Your task to perform on an android device: search for starred emails in the gmail app Image 0: 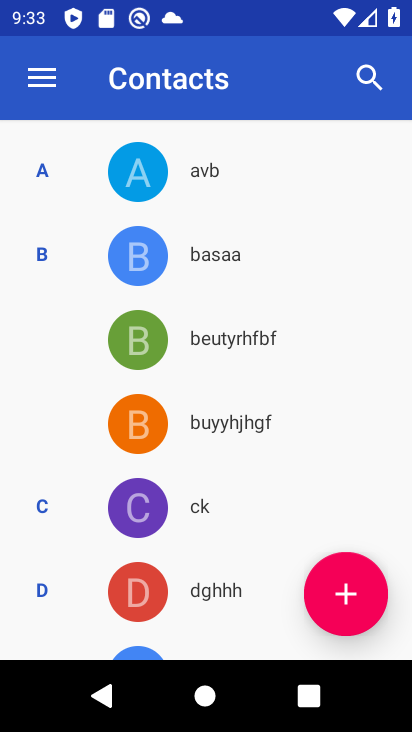
Step 0: press home button
Your task to perform on an android device: search for starred emails in the gmail app Image 1: 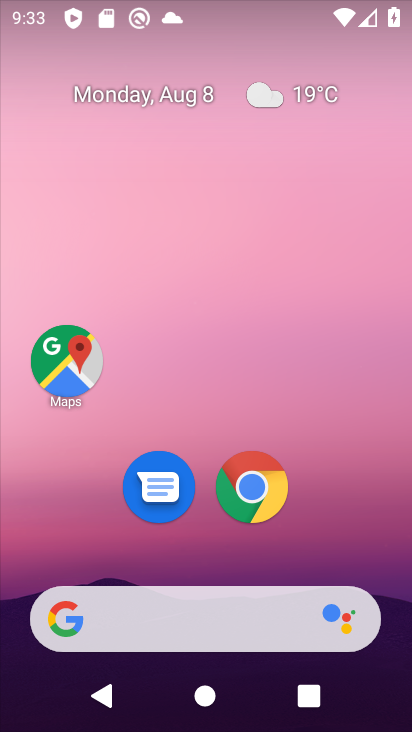
Step 1: drag from (214, 563) to (214, 60)
Your task to perform on an android device: search for starred emails in the gmail app Image 2: 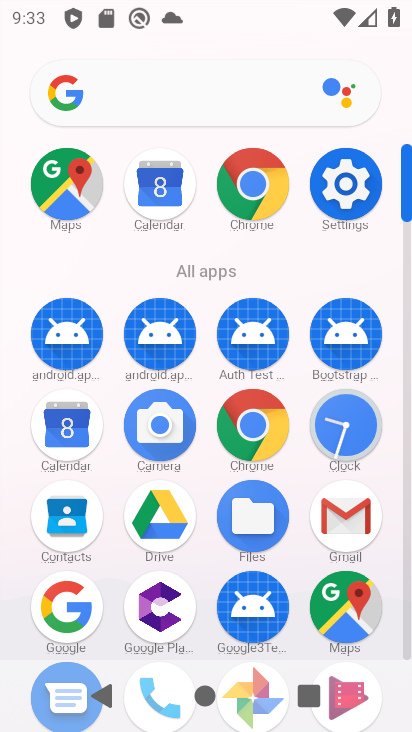
Step 2: click (353, 512)
Your task to perform on an android device: search for starred emails in the gmail app Image 3: 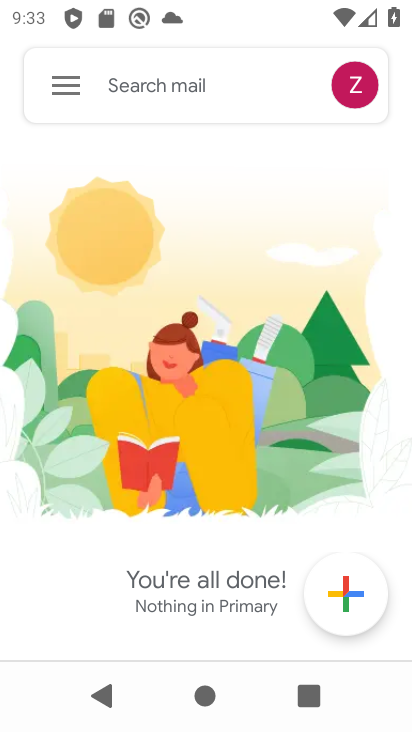
Step 3: click (67, 84)
Your task to perform on an android device: search for starred emails in the gmail app Image 4: 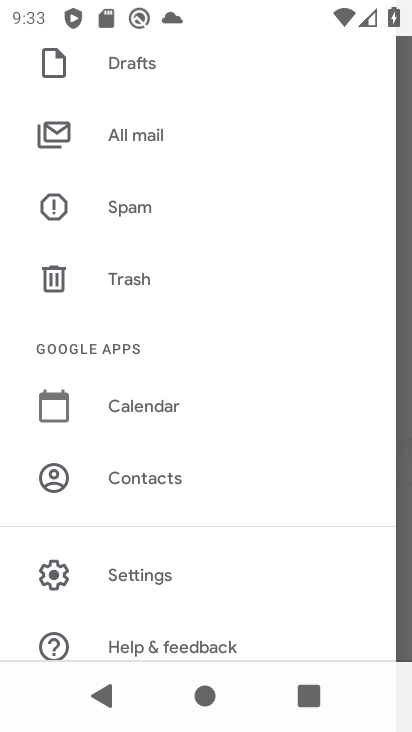
Step 4: drag from (150, 124) to (128, 440)
Your task to perform on an android device: search for starred emails in the gmail app Image 5: 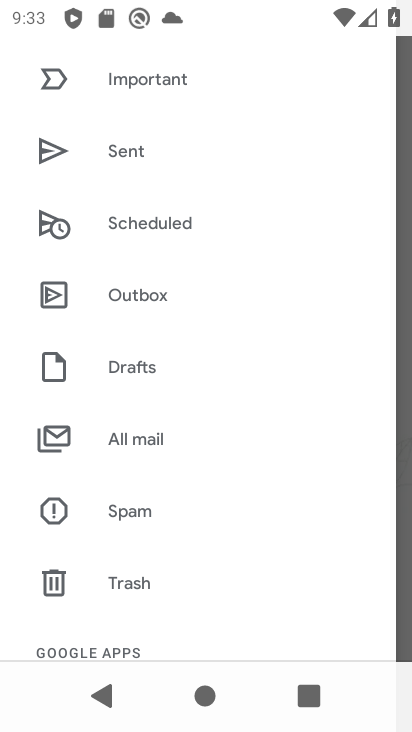
Step 5: drag from (163, 149) to (160, 462)
Your task to perform on an android device: search for starred emails in the gmail app Image 6: 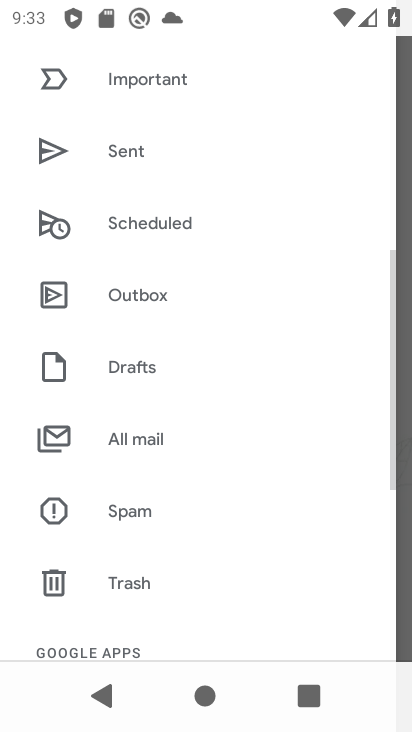
Step 6: drag from (121, 140) to (119, 487)
Your task to perform on an android device: search for starred emails in the gmail app Image 7: 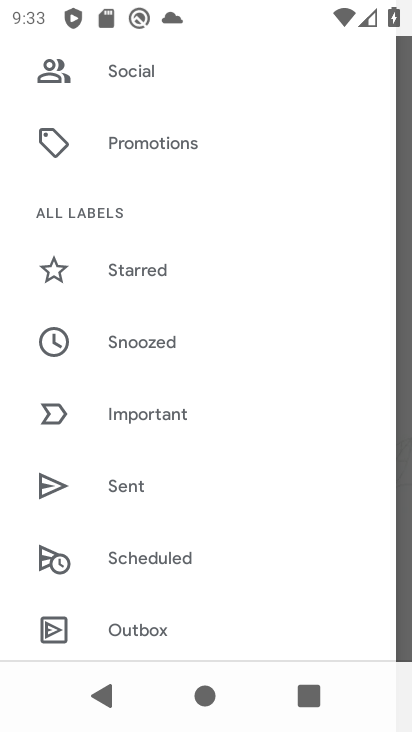
Step 7: click (139, 270)
Your task to perform on an android device: search for starred emails in the gmail app Image 8: 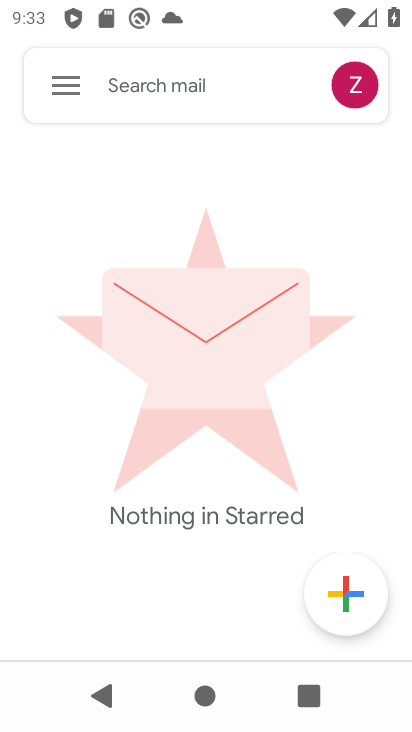
Step 8: task complete